Your task to perform on an android device: see sites visited before in the chrome app Image 0: 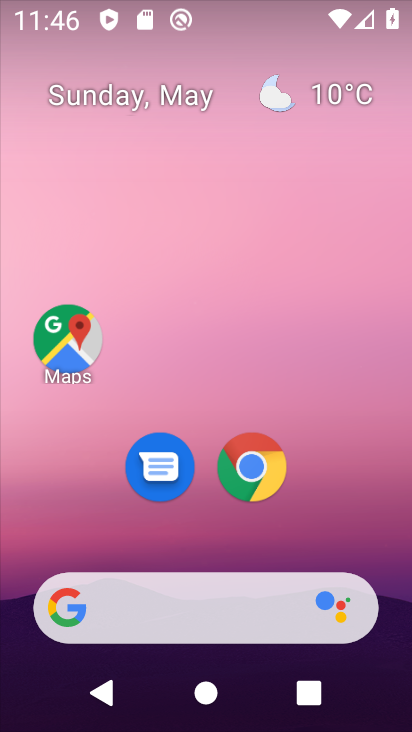
Step 0: drag from (369, 506) to (328, 227)
Your task to perform on an android device: see sites visited before in the chrome app Image 1: 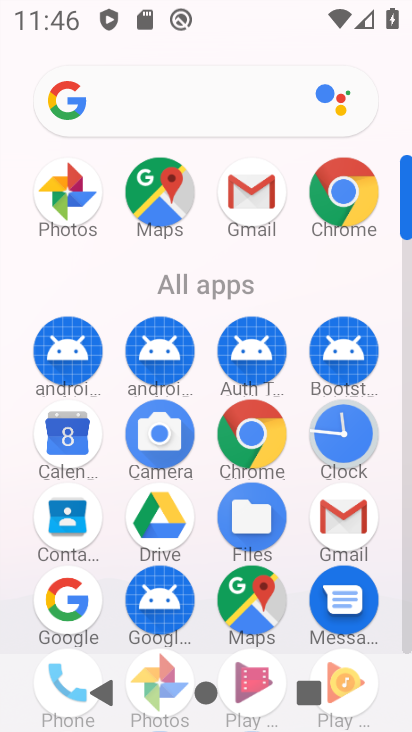
Step 1: click (238, 464)
Your task to perform on an android device: see sites visited before in the chrome app Image 2: 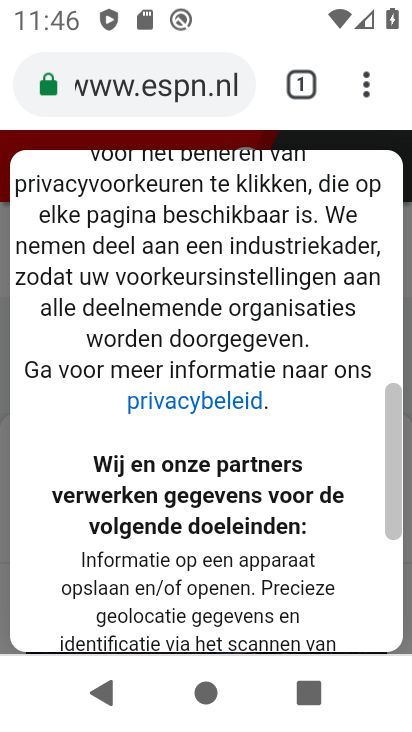
Step 2: task complete